Your task to perform on an android device: Open settings Image 0: 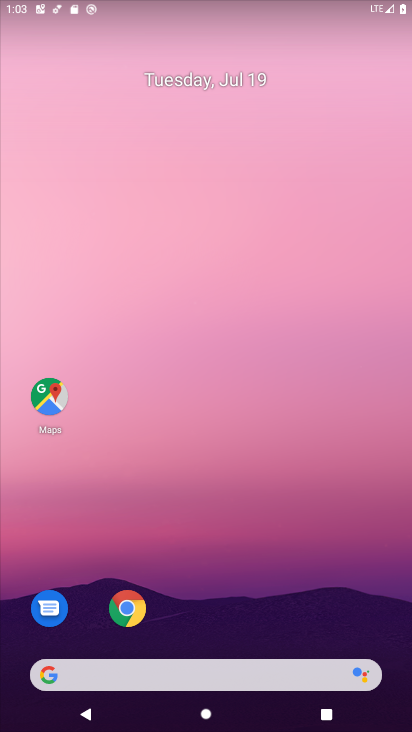
Step 0: drag from (248, 634) to (252, 80)
Your task to perform on an android device: Open settings Image 1: 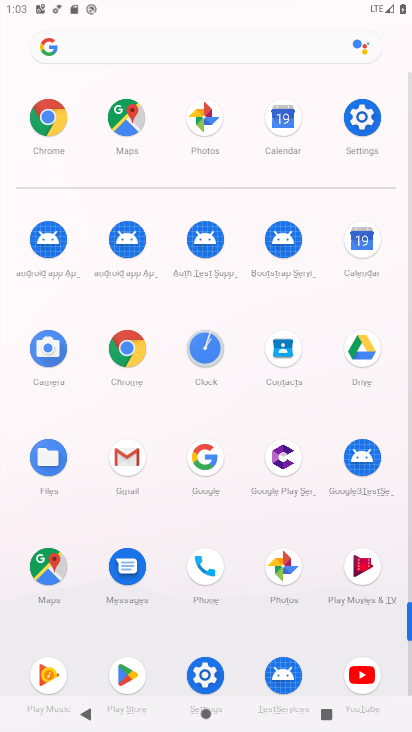
Step 1: click (218, 673)
Your task to perform on an android device: Open settings Image 2: 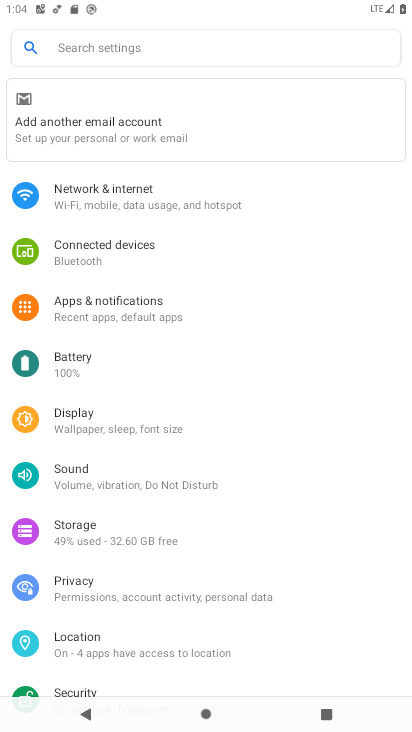
Step 2: task complete